Your task to perform on an android device: delete a single message in the gmail app Image 0: 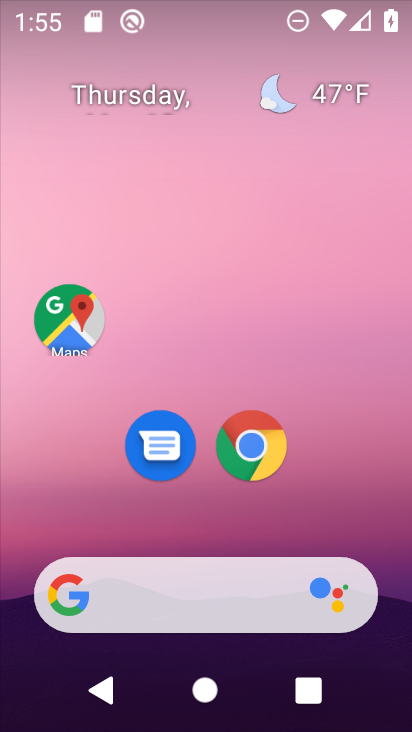
Step 0: drag from (198, 532) to (188, 179)
Your task to perform on an android device: delete a single message in the gmail app Image 1: 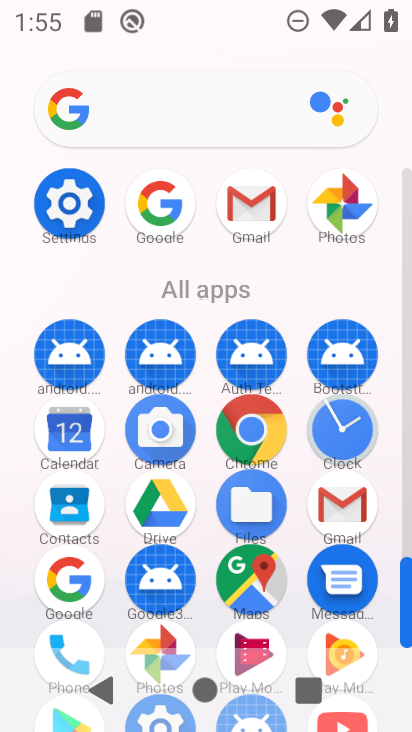
Step 1: click (255, 200)
Your task to perform on an android device: delete a single message in the gmail app Image 2: 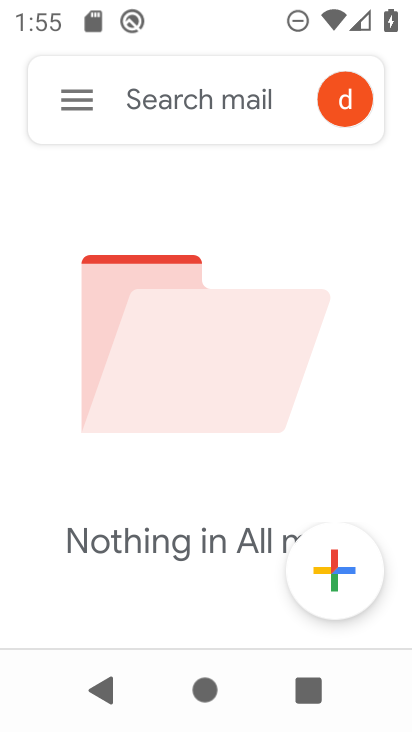
Step 2: click (68, 91)
Your task to perform on an android device: delete a single message in the gmail app Image 3: 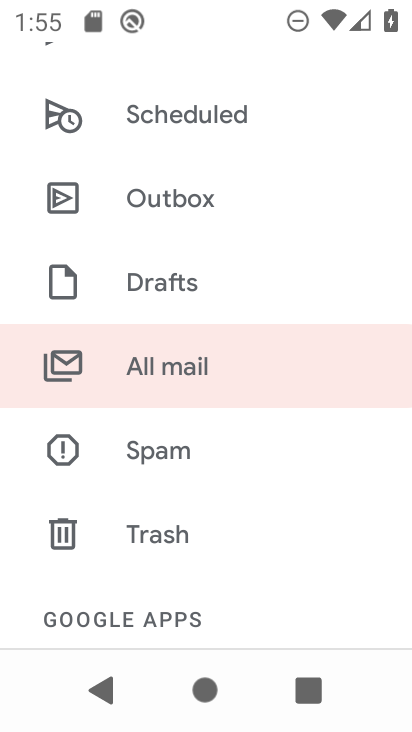
Step 3: click (180, 377)
Your task to perform on an android device: delete a single message in the gmail app Image 4: 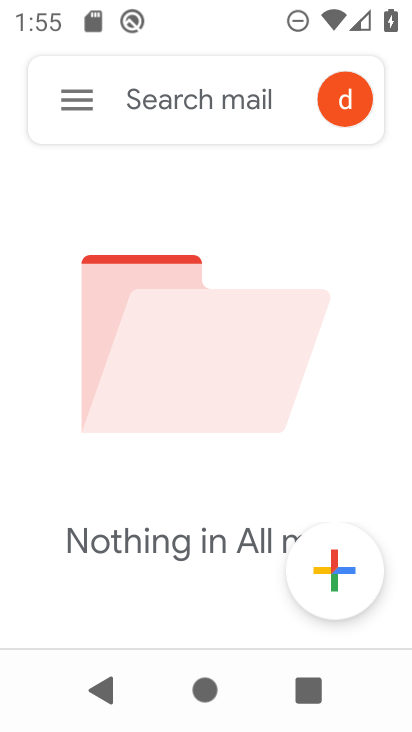
Step 4: task complete